Your task to perform on an android device: turn on improve location accuracy Image 0: 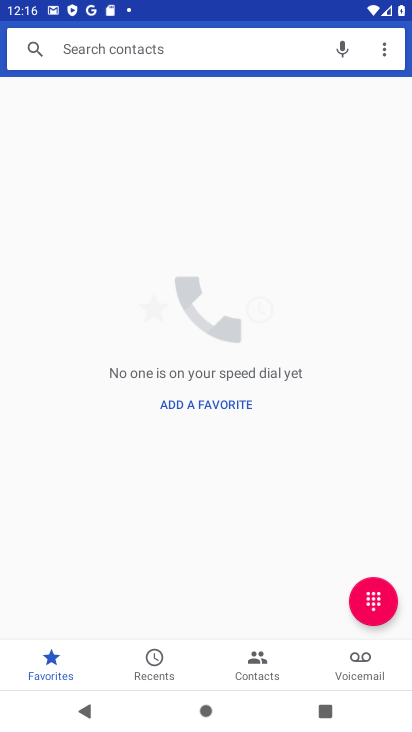
Step 0: press home button
Your task to perform on an android device: turn on improve location accuracy Image 1: 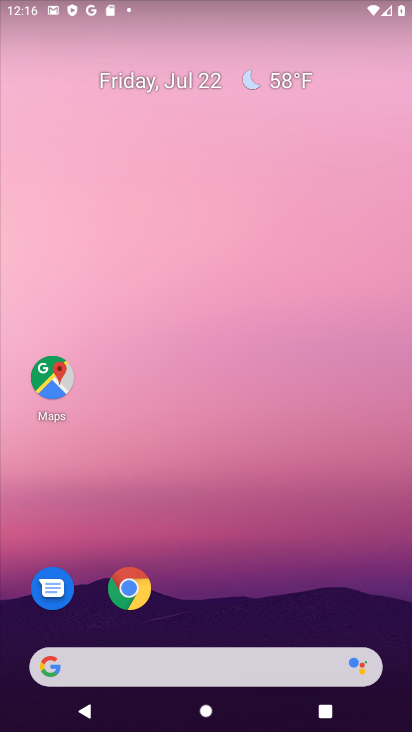
Step 1: drag from (305, 592) to (286, 40)
Your task to perform on an android device: turn on improve location accuracy Image 2: 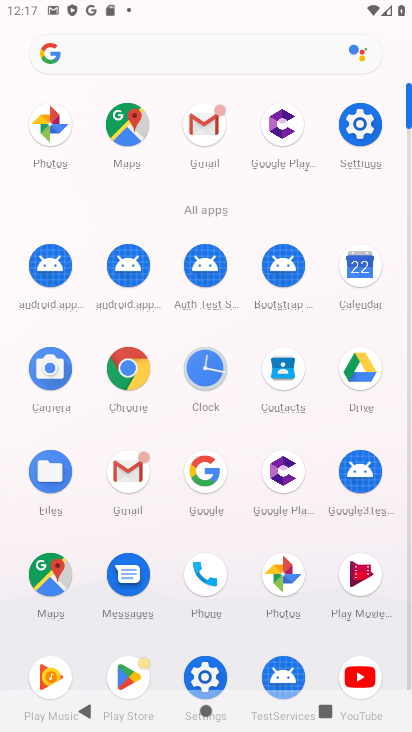
Step 2: click (207, 677)
Your task to perform on an android device: turn on improve location accuracy Image 3: 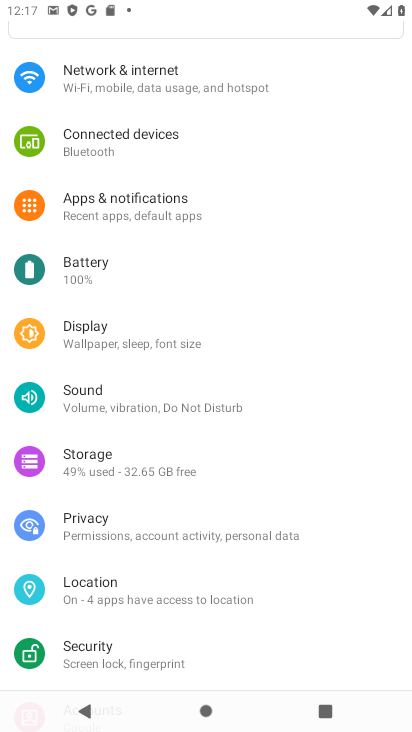
Step 3: click (117, 604)
Your task to perform on an android device: turn on improve location accuracy Image 4: 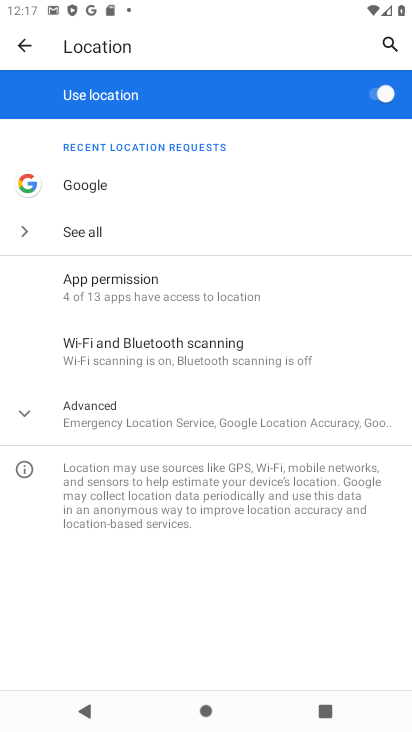
Step 4: click (152, 412)
Your task to perform on an android device: turn on improve location accuracy Image 5: 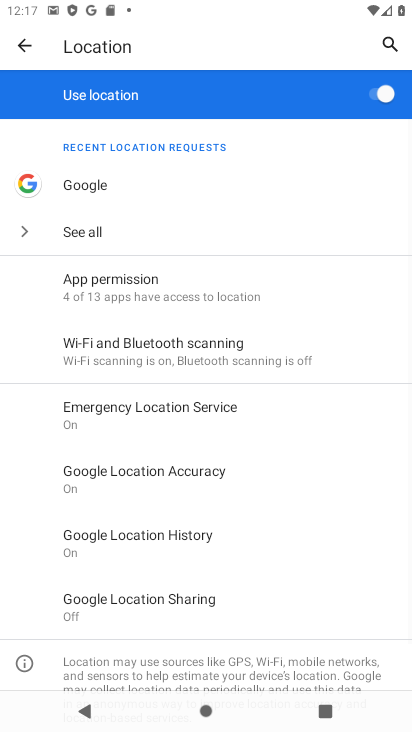
Step 5: click (146, 483)
Your task to perform on an android device: turn on improve location accuracy Image 6: 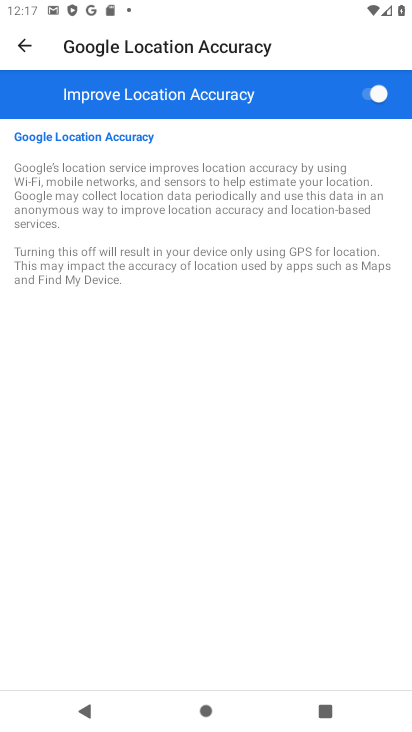
Step 6: task complete